Your task to perform on an android device: stop showing notifications on the lock screen Image 0: 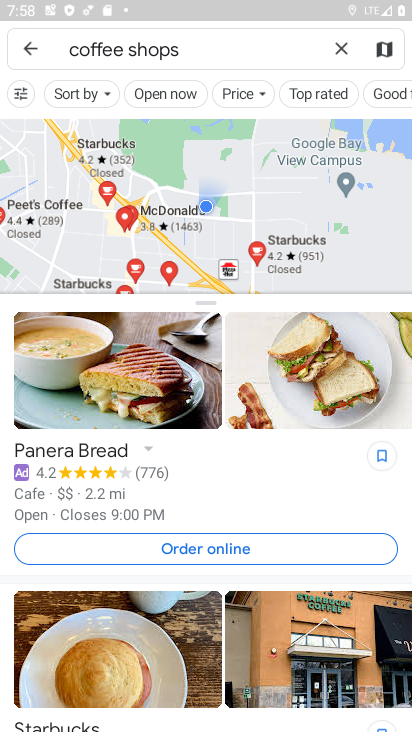
Step 0: press home button
Your task to perform on an android device: stop showing notifications on the lock screen Image 1: 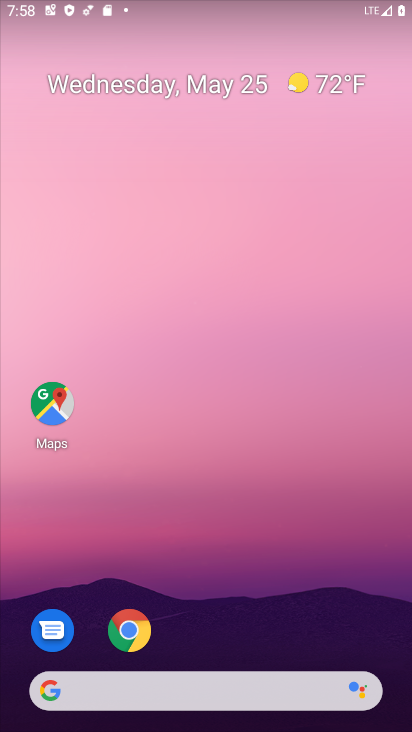
Step 1: drag from (228, 636) to (275, 242)
Your task to perform on an android device: stop showing notifications on the lock screen Image 2: 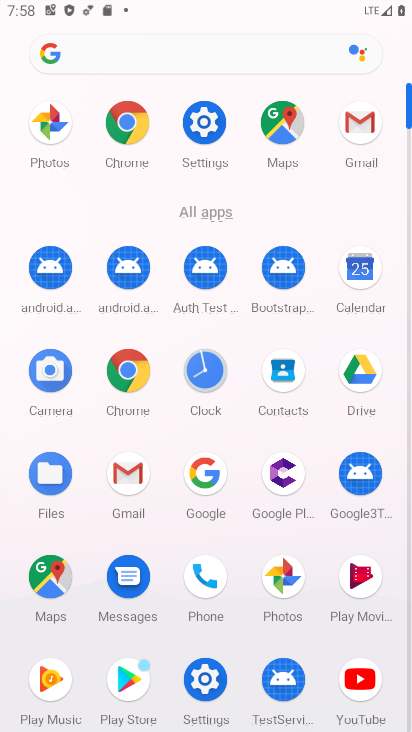
Step 2: click (208, 115)
Your task to perform on an android device: stop showing notifications on the lock screen Image 3: 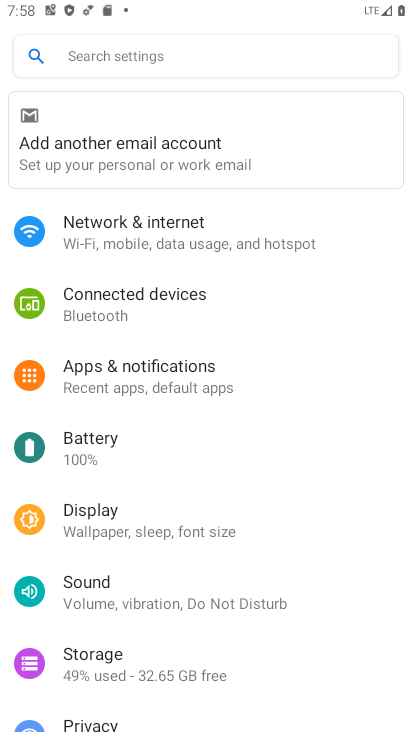
Step 3: click (208, 381)
Your task to perform on an android device: stop showing notifications on the lock screen Image 4: 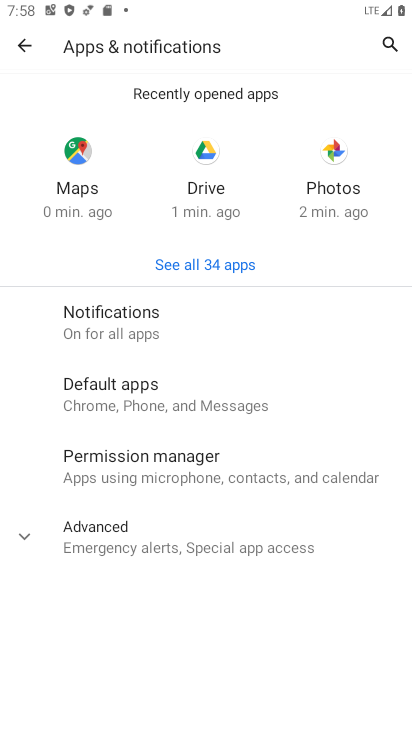
Step 4: click (181, 335)
Your task to perform on an android device: stop showing notifications on the lock screen Image 5: 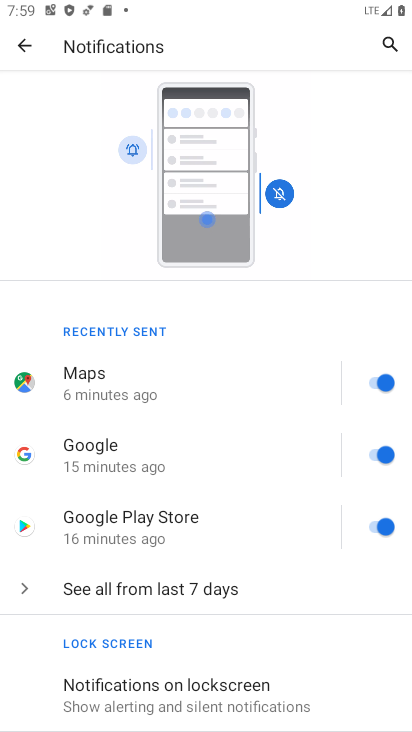
Step 5: drag from (208, 689) to (214, 400)
Your task to perform on an android device: stop showing notifications on the lock screen Image 6: 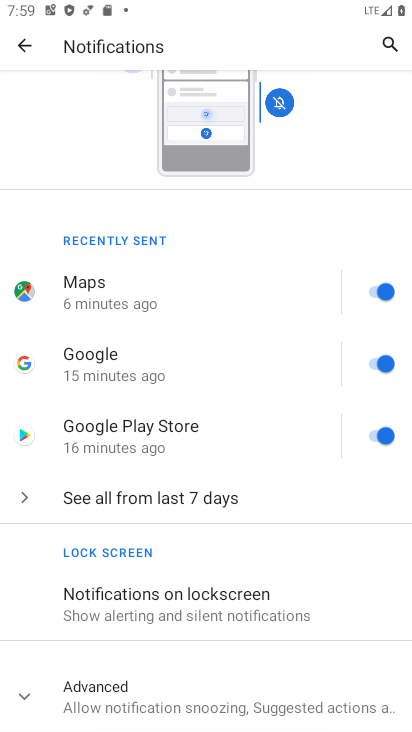
Step 6: click (174, 610)
Your task to perform on an android device: stop showing notifications on the lock screen Image 7: 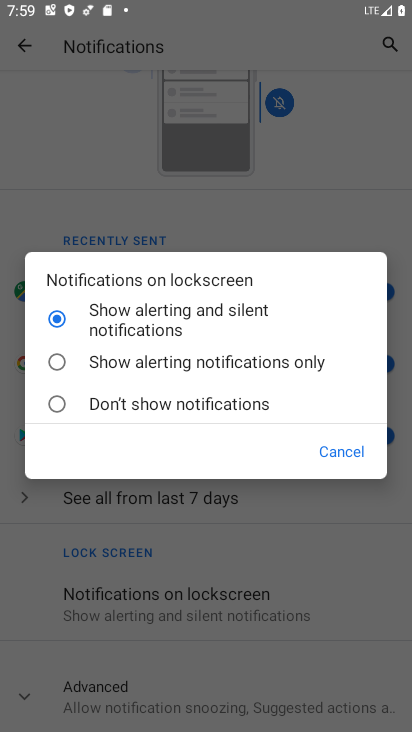
Step 7: click (197, 395)
Your task to perform on an android device: stop showing notifications on the lock screen Image 8: 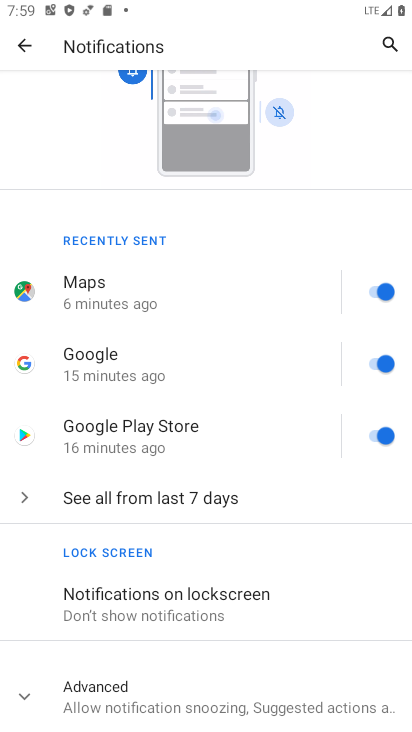
Step 8: task complete